Your task to perform on an android device: uninstall "Gboard" Image 0: 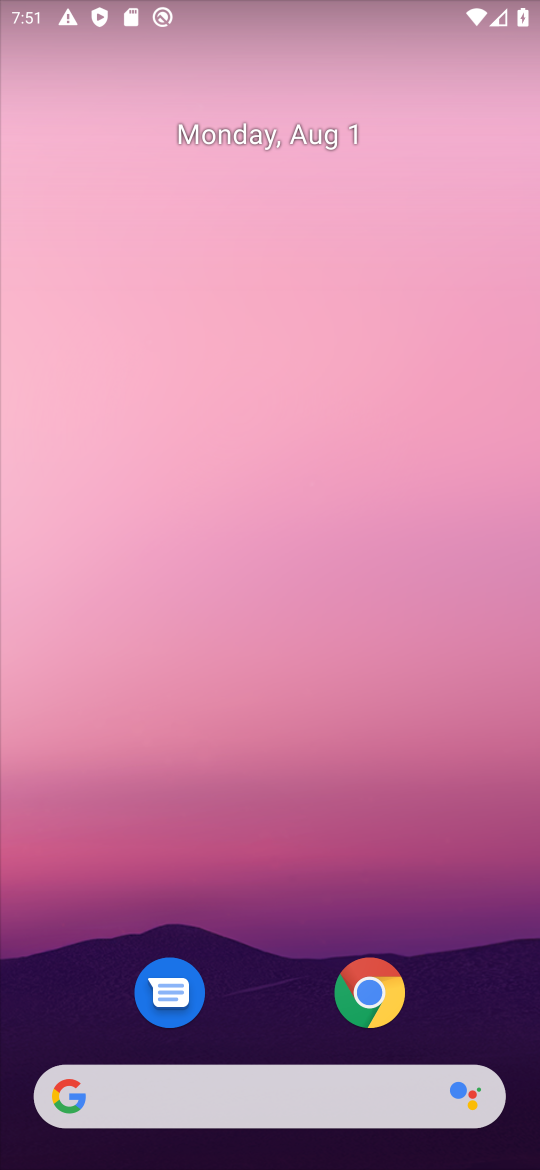
Step 0: drag from (276, 1016) to (283, 0)
Your task to perform on an android device: uninstall "Gboard" Image 1: 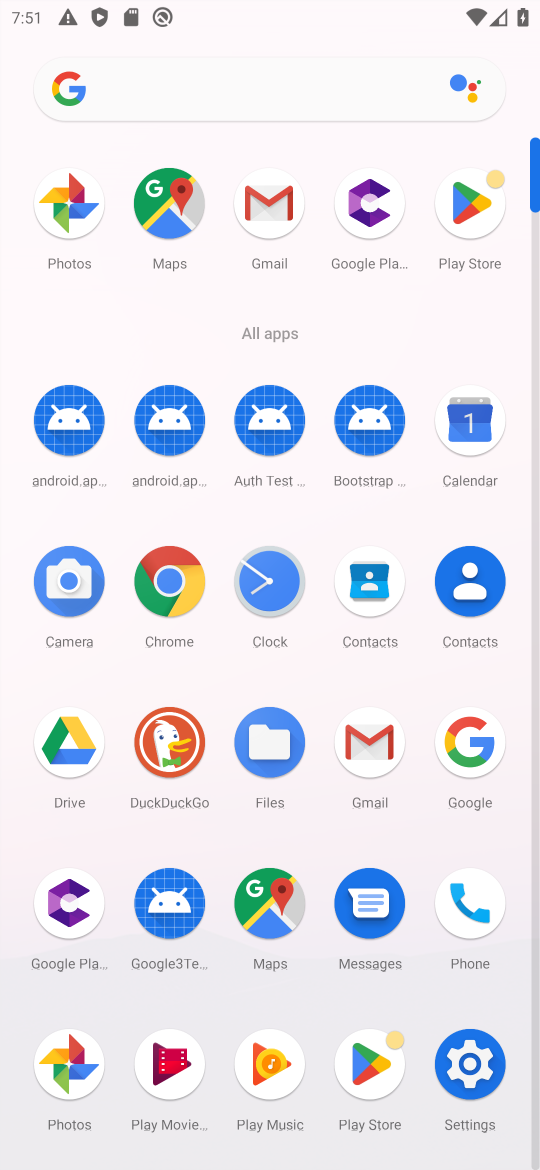
Step 1: click (475, 198)
Your task to perform on an android device: uninstall "Gboard" Image 2: 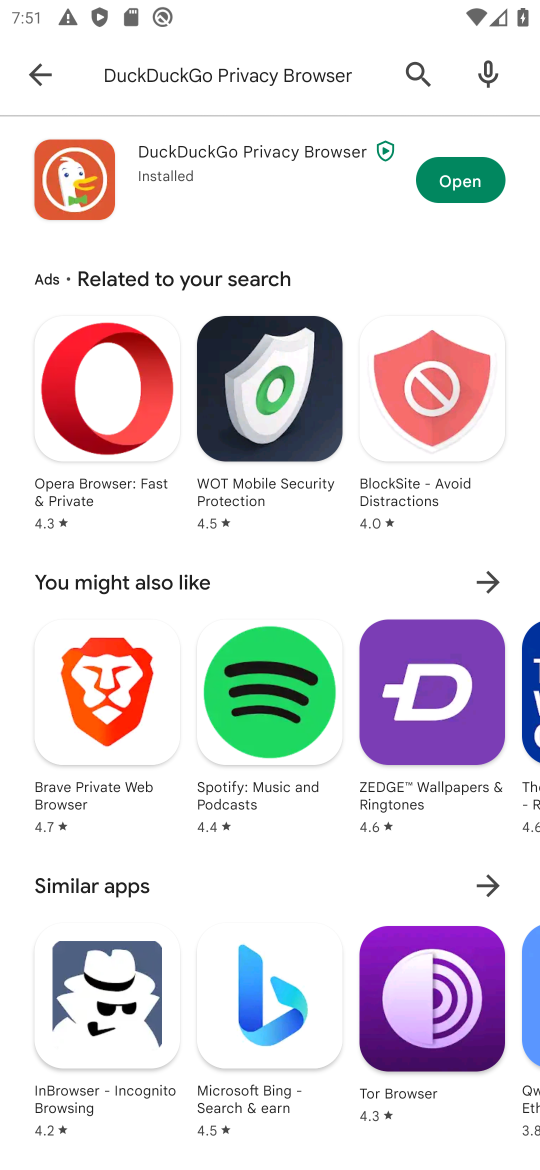
Step 2: click (334, 66)
Your task to perform on an android device: uninstall "Gboard" Image 3: 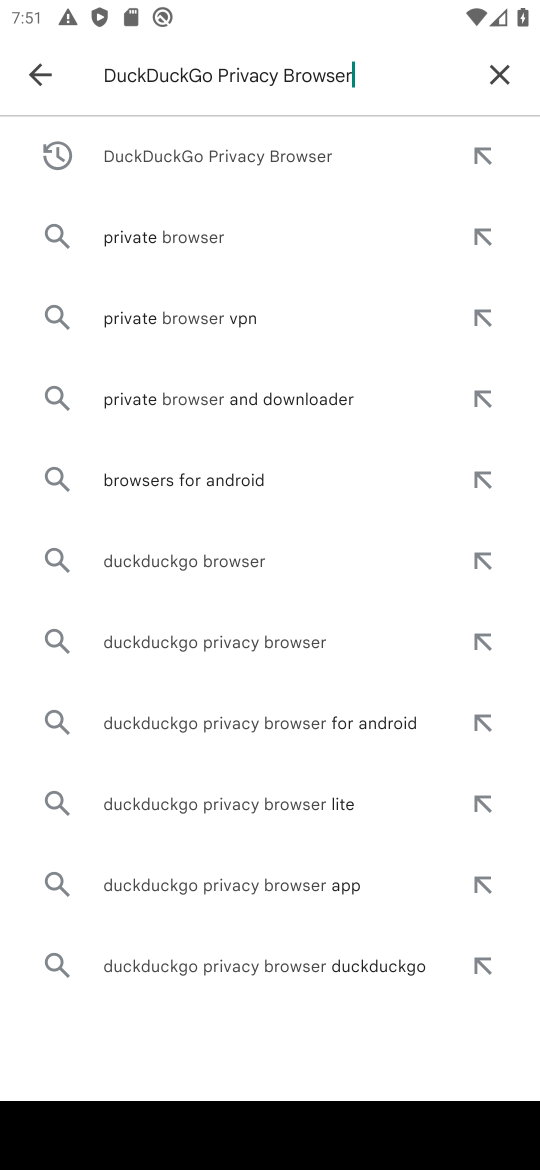
Step 3: click (495, 59)
Your task to perform on an android device: uninstall "Gboard" Image 4: 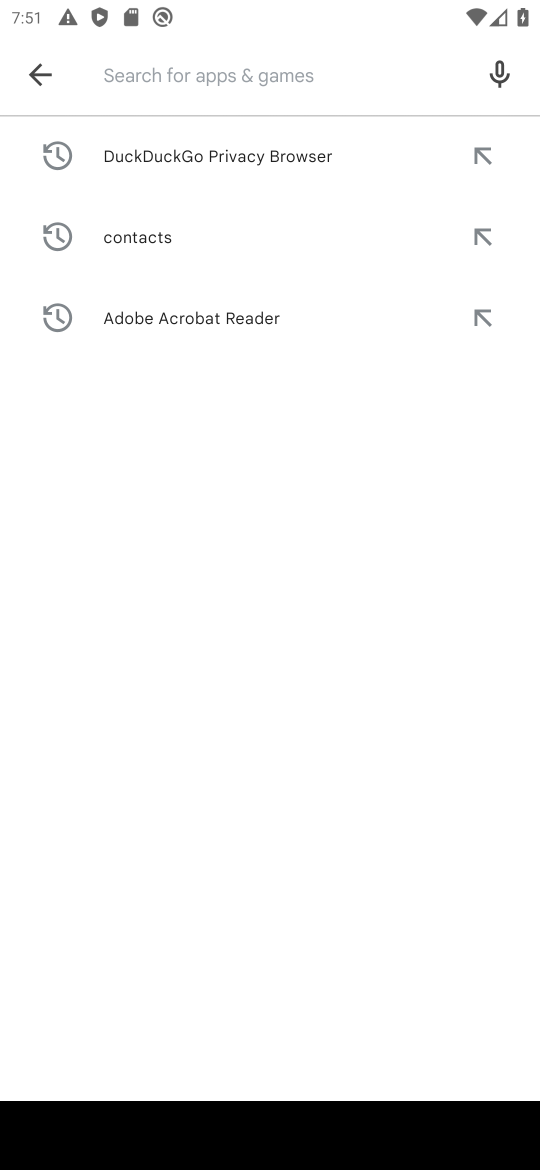
Step 4: type "Gboard"
Your task to perform on an android device: uninstall "Gboard" Image 5: 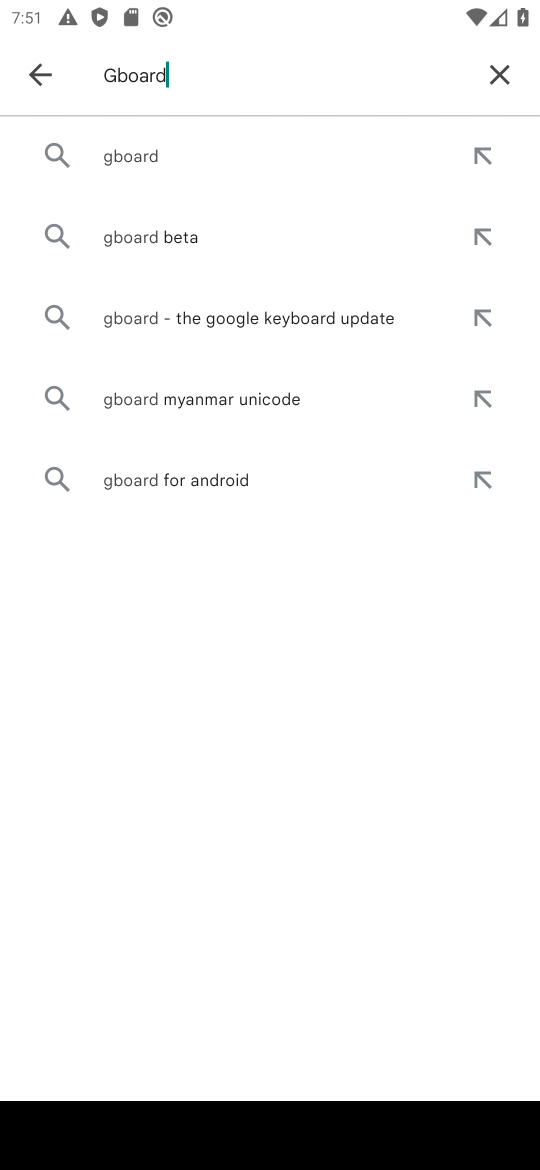
Step 5: press enter
Your task to perform on an android device: uninstall "Gboard" Image 6: 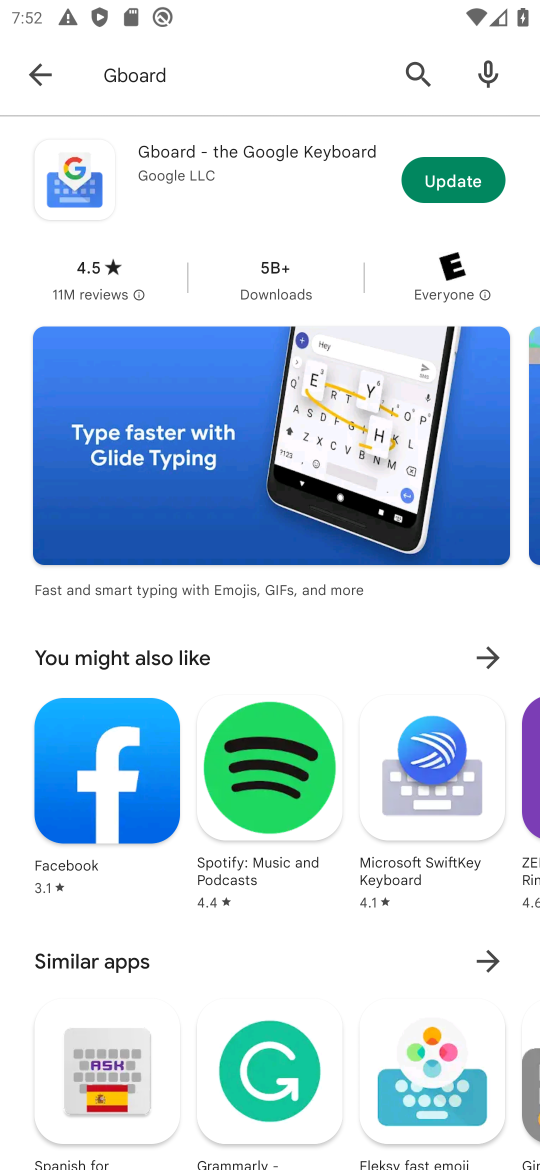
Step 6: click (267, 174)
Your task to perform on an android device: uninstall "Gboard" Image 7: 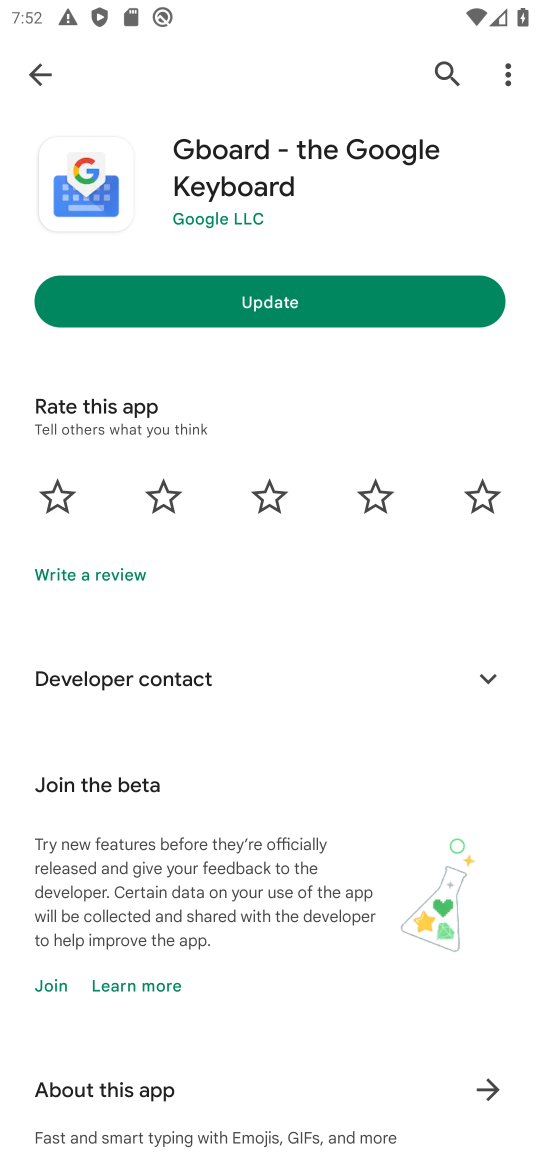
Step 7: task complete